Your task to perform on an android device: manage bookmarks in the chrome app Image 0: 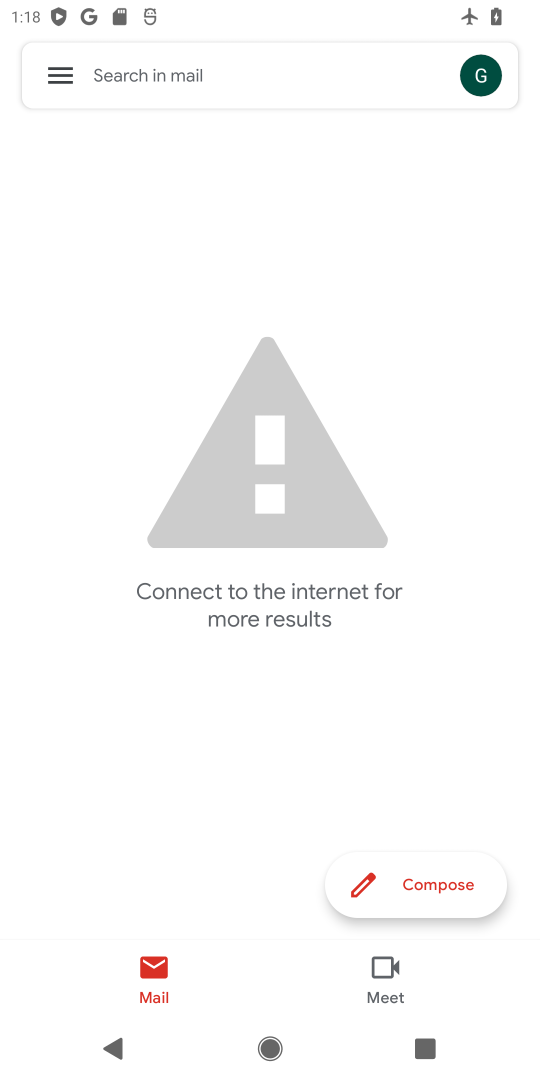
Step 0: press home button
Your task to perform on an android device: manage bookmarks in the chrome app Image 1: 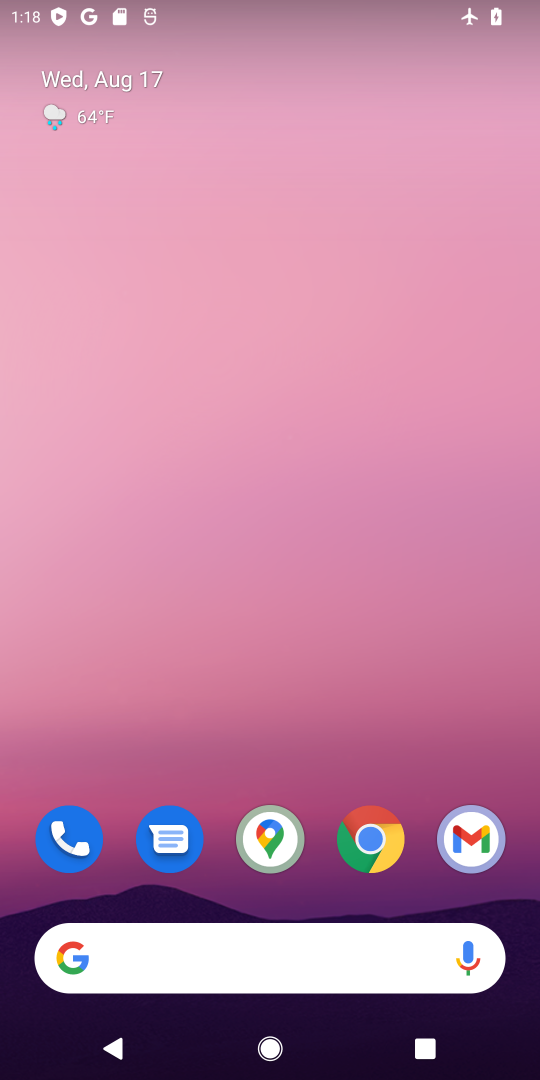
Step 1: click (373, 843)
Your task to perform on an android device: manage bookmarks in the chrome app Image 2: 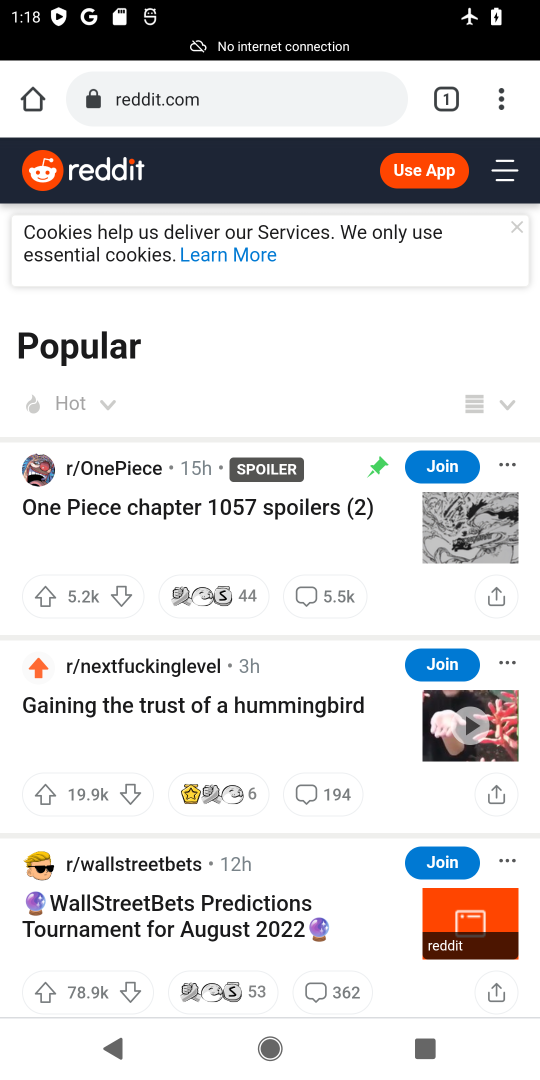
Step 2: task complete